Your task to perform on an android device: Show me popular videos on Youtube Image 0: 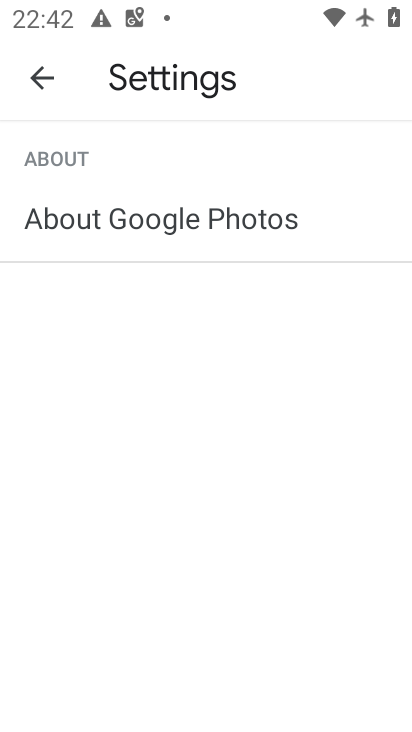
Step 0: press home button
Your task to perform on an android device: Show me popular videos on Youtube Image 1: 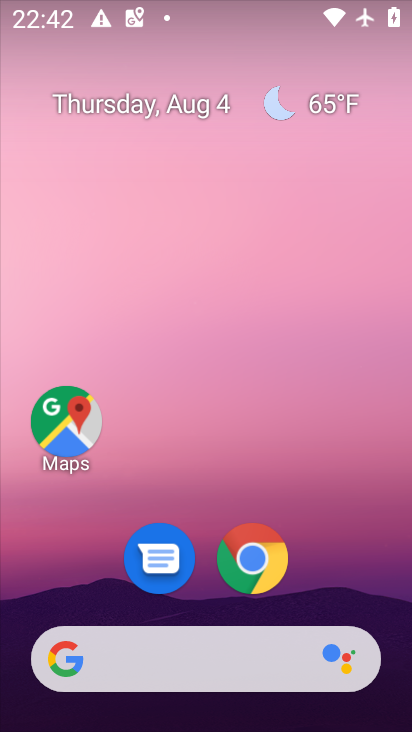
Step 1: drag from (329, 552) to (354, 54)
Your task to perform on an android device: Show me popular videos on Youtube Image 2: 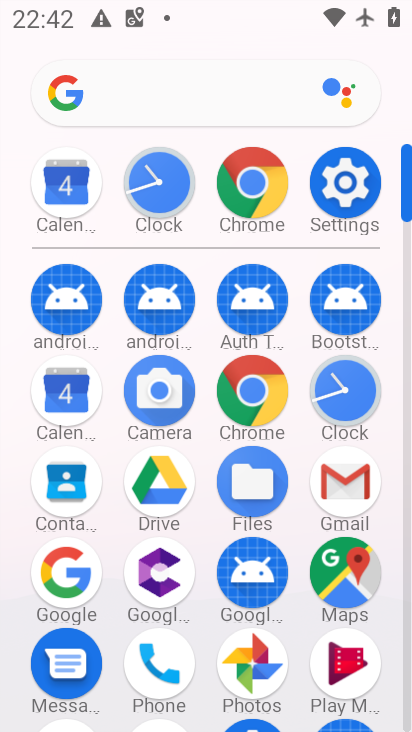
Step 2: drag from (283, 531) to (333, 188)
Your task to perform on an android device: Show me popular videos on Youtube Image 3: 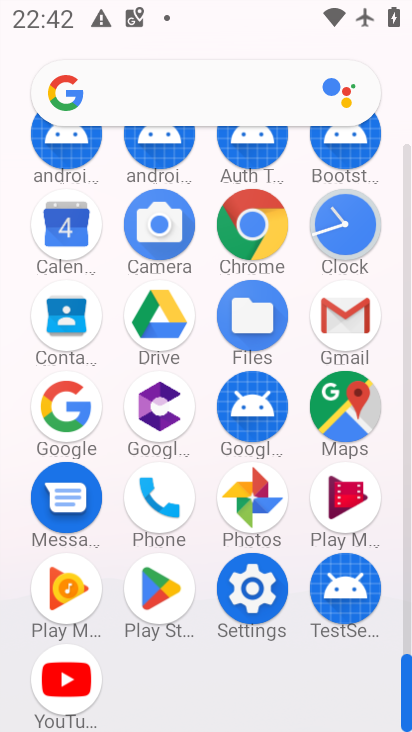
Step 3: click (66, 660)
Your task to perform on an android device: Show me popular videos on Youtube Image 4: 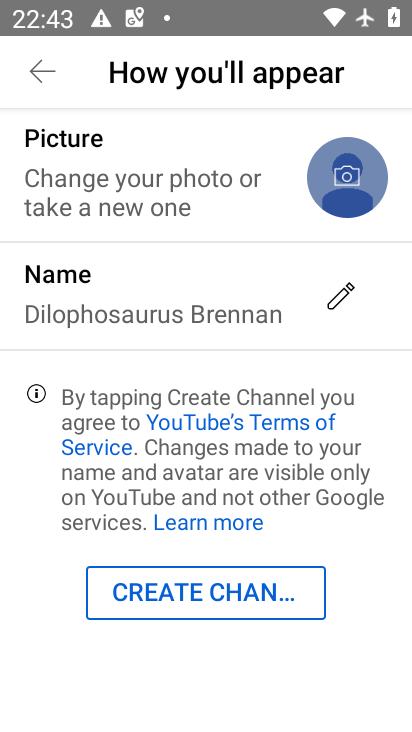
Step 4: click (58, 79)
Your task to perform on an android device: Show me popular videos on Youtube Image 5: 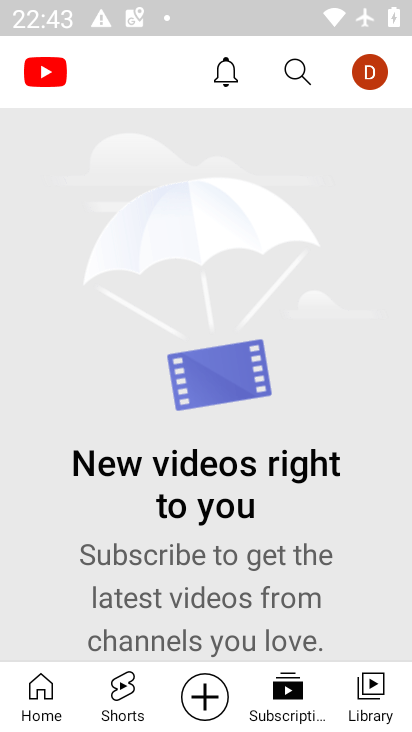
Step 5: click (16, 703)
Your task to perform on an android device: Show me popular videos on Youtube Image 6: 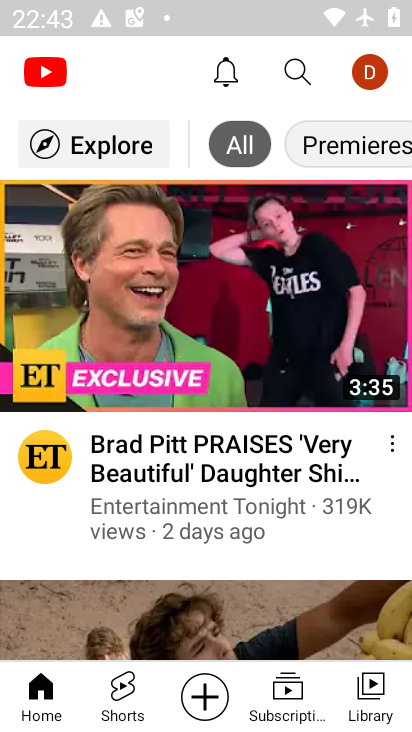
Step 6: click (118, 140)
Your task to perform on an android device: Show me popular videos on Youtube Image 7: 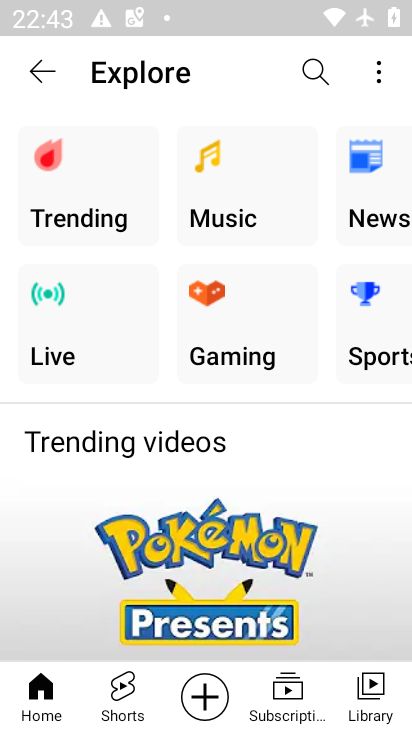
Step 7: task complete